Your task to perform on an android device: find photos in the google photos app Image 0: 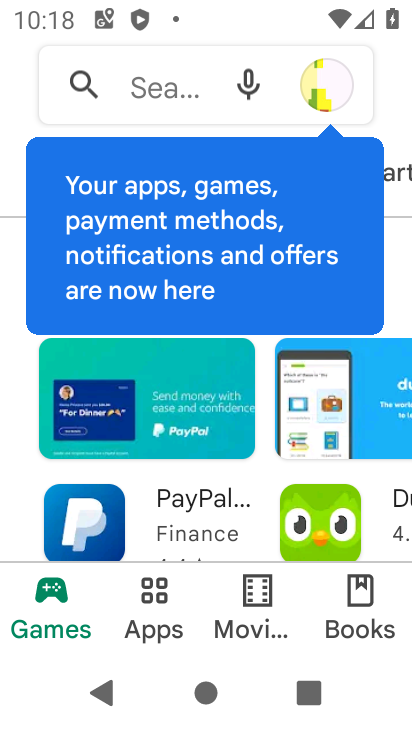
Step 0: press home button
Your task to perform on an android device: find photos in the google photos app Image 1: 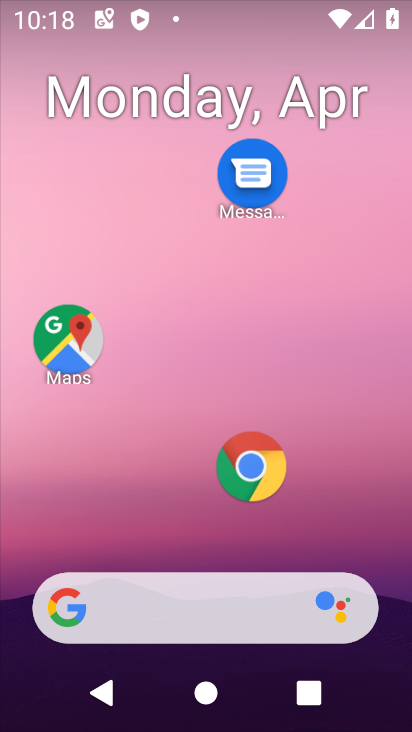
Step 1: drag from (187, 501) to (233, 25)
Your task to perform on an android device: find photos in the google photos app Image 2: 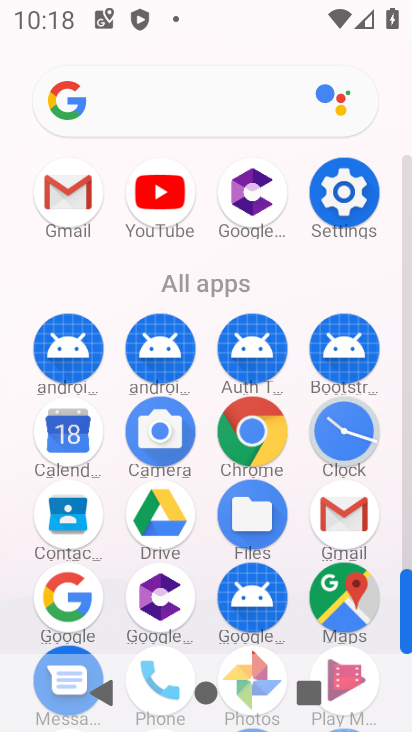
Step 2: drag from (209, 568) to (202, 344)
Your task to perform on an android device: find photos in the google photos app Image 3: 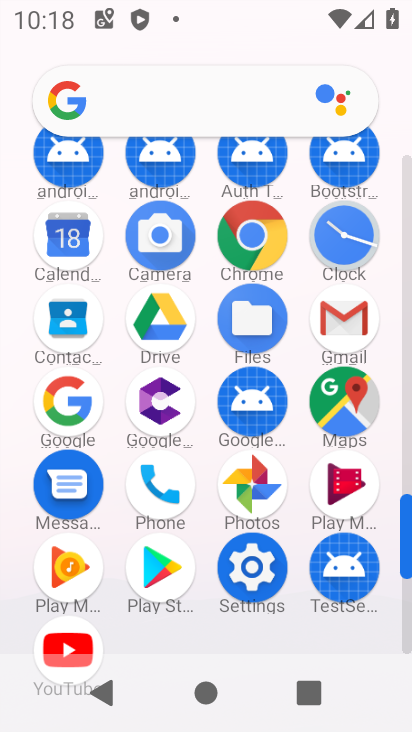
Step 3: click (245, 482)
Your task to perform on an android device: find photos in the google photos app Image 4: 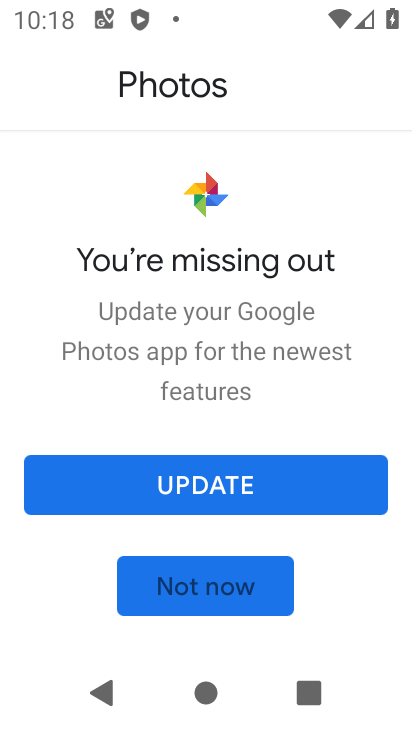
Step 4: click (188, 485)
Your task to perform on an android device: find photos in the google photos app Image 5: 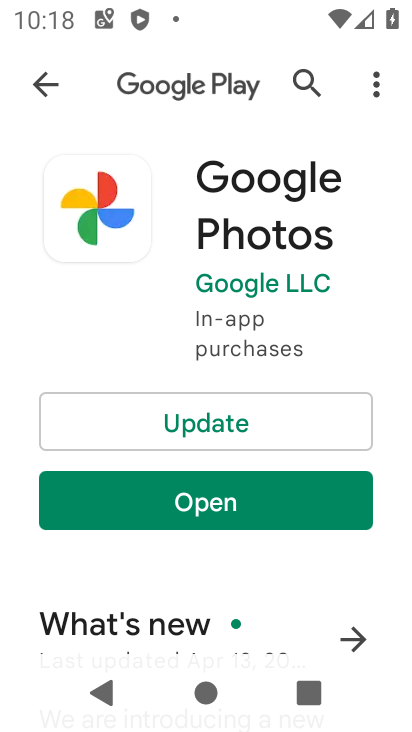
Step 5: click (225, 443)
Your task to perform on an android device: find photos in the google photos app Image 6: 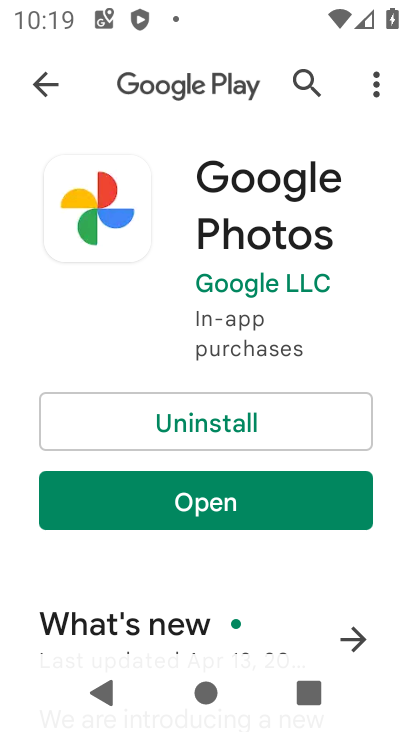
Step 6: click (194, 487)
Your task to perform on an android device: find photos in the google photos app Image 7: 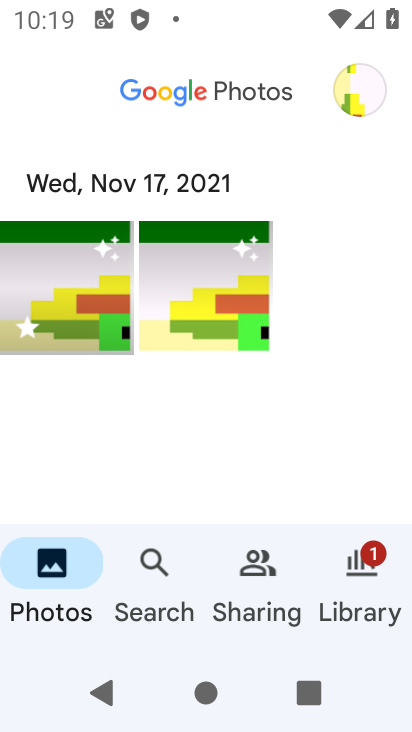
Step 7: click (77, 282)
Your task to perform on an android device: find photos in the google photos app Image 8: 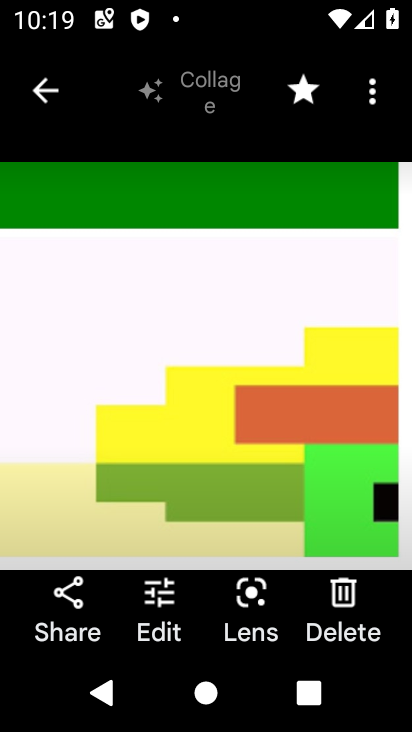
Step 8: task complete